Your task to perform on an android device: change the clock display to analog Image 0: 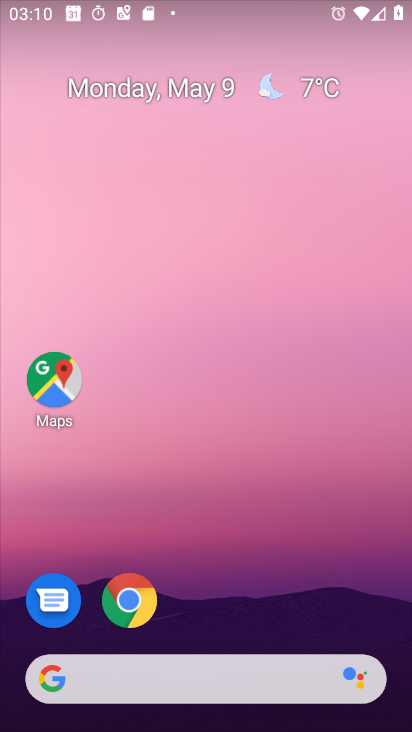
Step 0: drag from (181, 661) to (217, 27)
Your task to perform on an android device: change the clock display to analog Image 1: 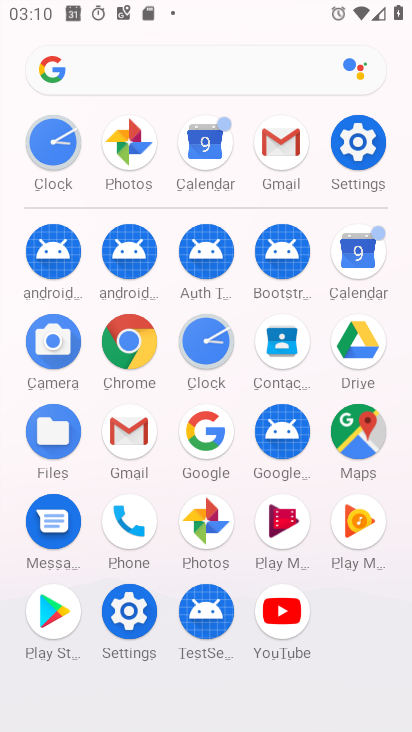
Step 1: click (215, 338)
Your task to perform on an android device: change the clock display to analog Image 2: 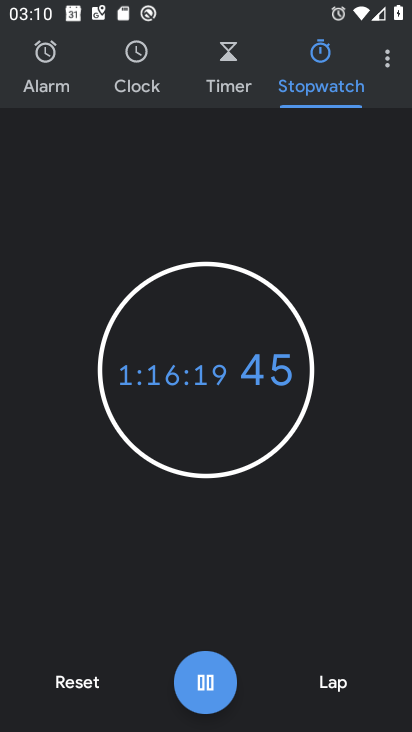
Step 2: click (383, 61)
Your task to perform on an android device: change the clock display to analog Image 3: 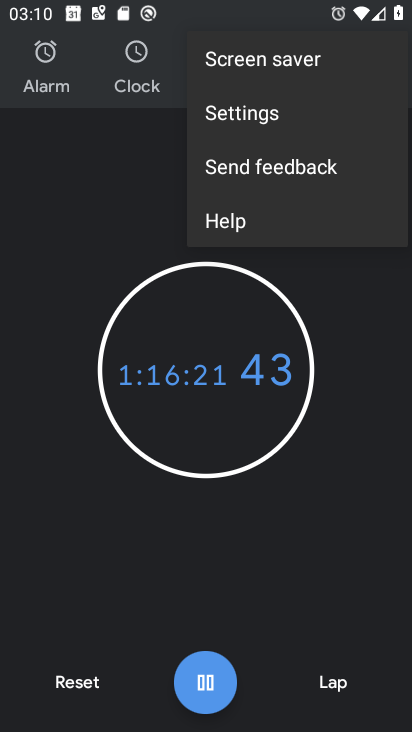
Step 3: click (296, 123)
Your task to perform on an android device: change the clock display to analog Image 4: 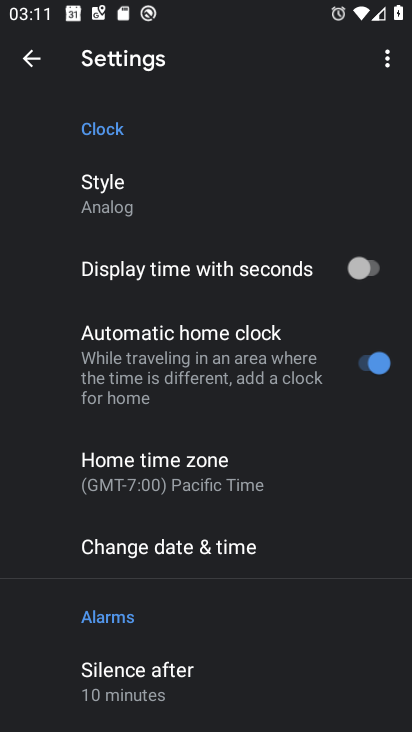
Step 4: task complete